Your task to perform on an android device: uninstall "Google Pay: Save, Pay, Manage" Image 0: 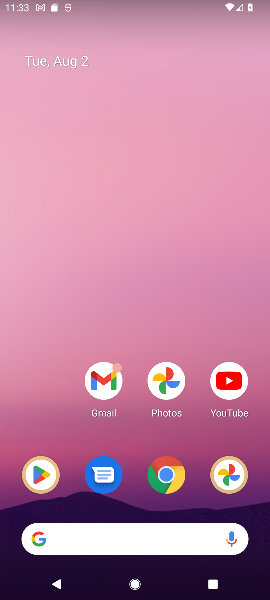
Step 0: click (36, 473)
Your task to perform on an android device: uninstall "Google Pay: Save, Pay, Manage" Image 1: 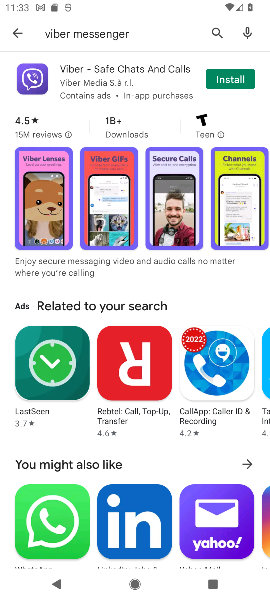
Step 1: click (214, 26)
Your task to perform on an android device: uninstall "Google Pay: Save, Pay, Manage" Image 2: 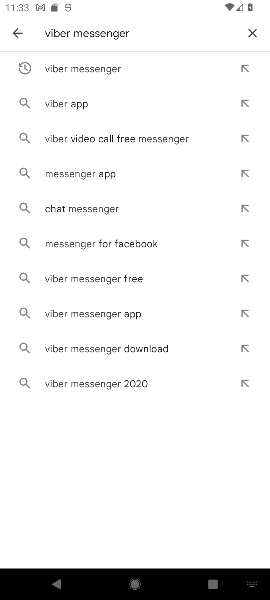
Step 2: click (250, 32)
Your task to perform on an android device: uninstall "Google Pay: Save, Pay, Manage" Image 3: 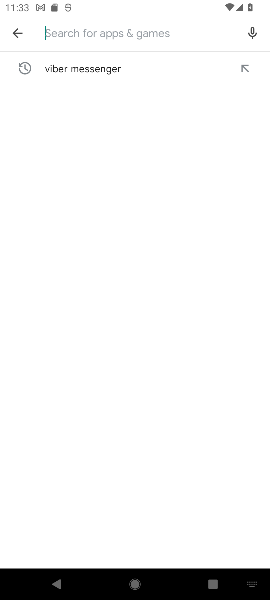
Step 3: click (249, 593)
Your task to perform on an android device: uninstall "Google Pay: Save, Pay, Manage" Image 4: 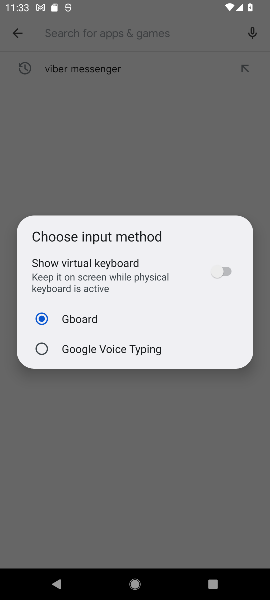
Step 4: type "Google Pay: Save, Pay, Manage"
Your task to perform on an android device: uninstall "Google Pay: Save, Pay, Manage" Image 5: 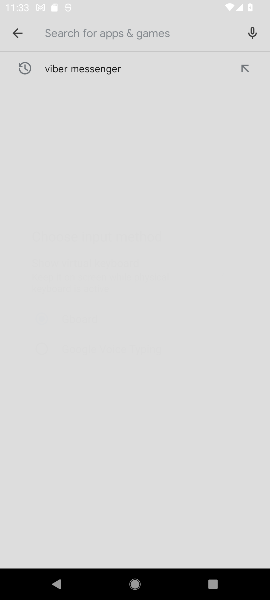
Step 5: type ""
Your task to perform on an android device: uninstall "Google Pay: Save, Pay, Manage" Image 6: 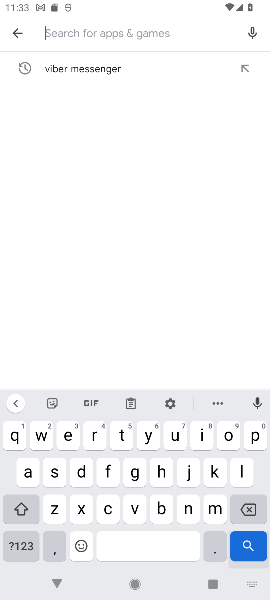
Step 6: type "Google Pay: Save, Pay, Manage"
Your task to perform on an android device: uninstall "Google Pay: Save, Pay, Manage" Image 7: 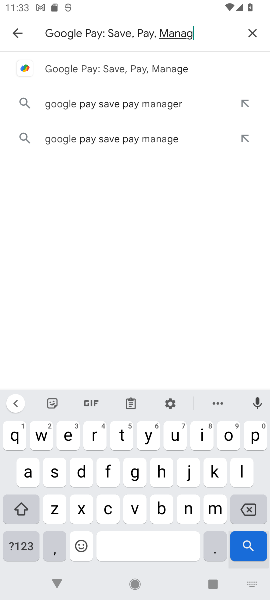
Step 7: type ""
Your task to perform on an android device: uninstall "Google Pay: Save, Pay, Manage" Image 8: 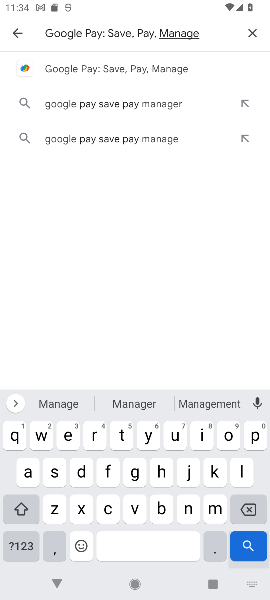
Step 8: click (162, 65)
Your task to perform on an android device: uninstall "Google Pay: Save, Pay, Manage" Image 9: 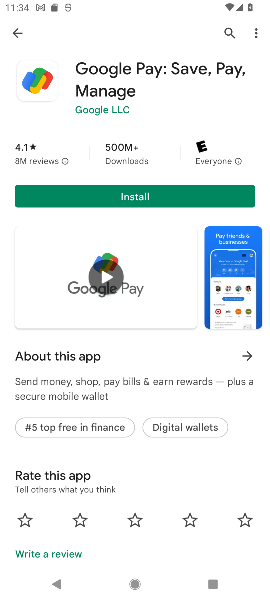
Step 9: task complete